Your task to perform on an android device: see sites visited before in the chrome app Image 0: 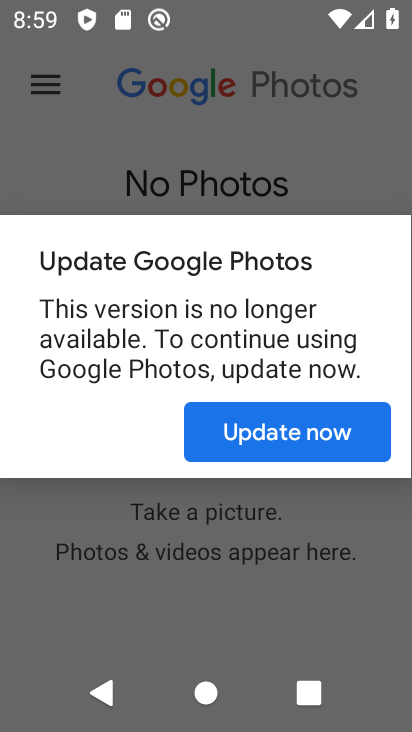
Step 0: press home button
Your task to perform on an android device: see sites visited before in the chrome app Image 1: 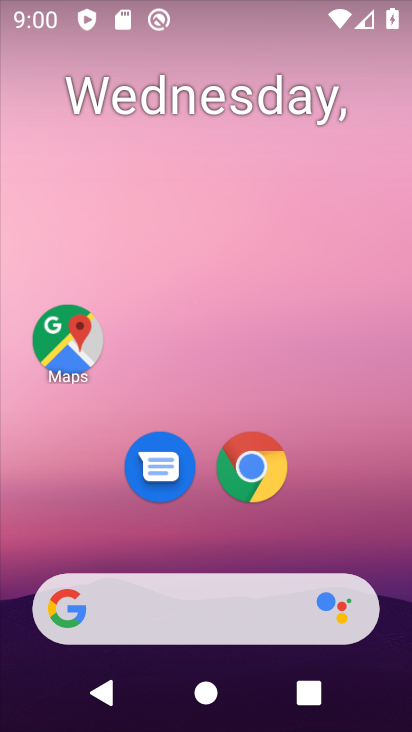
Step 1: drag from (227, 10) to (246, 448)
Your task to perform on an android device: see sites visited before in the chrome app Image 2: 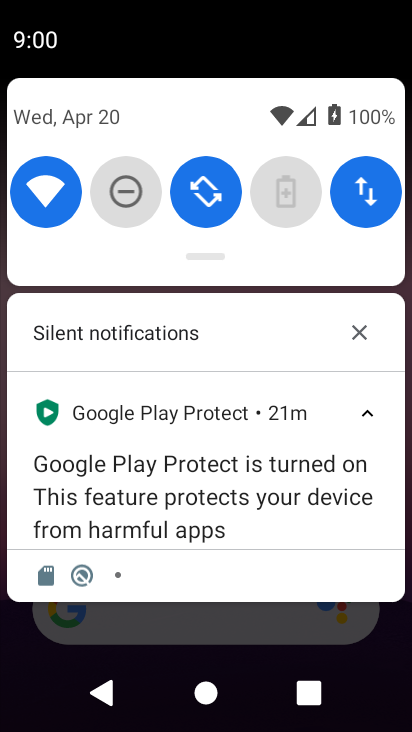
Step 2: drag from (268, 292) to (235, 530)
Your task to perform on an android device: see sites visited before in the chrome app Image 3: 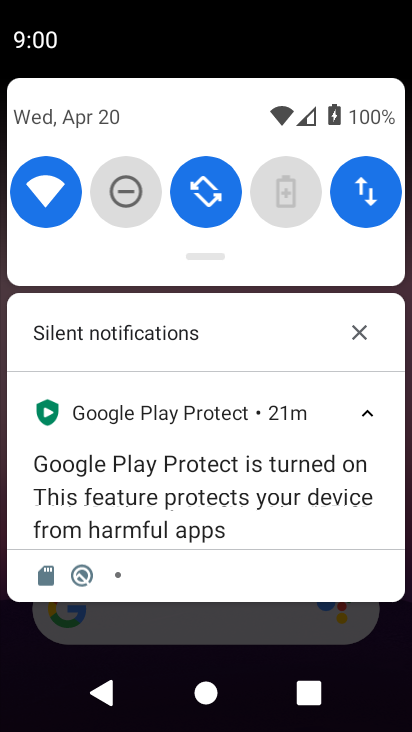
Step 3: drag from (254, 265) to (272, 561)
Your task to perform on an android device: see sites visited before in the chrome app Image 4: 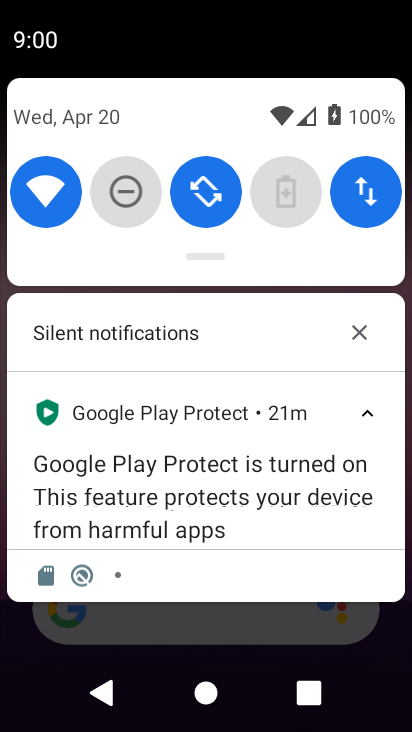
Step 4: drag from (218, 244) to (204, 568)
Your task to perform on an android device: see sites visited before in the chrome app Image 5: 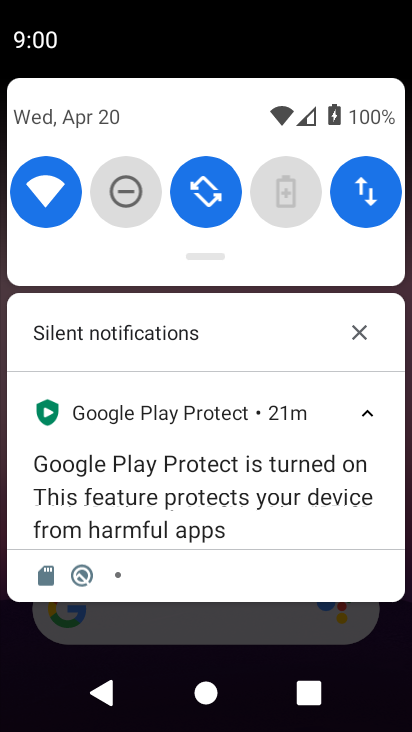
Step 5: drag from (261, 246) to (310, 706)
Your task to perform on an android device: see sites visited before in the chrome app Image 6: 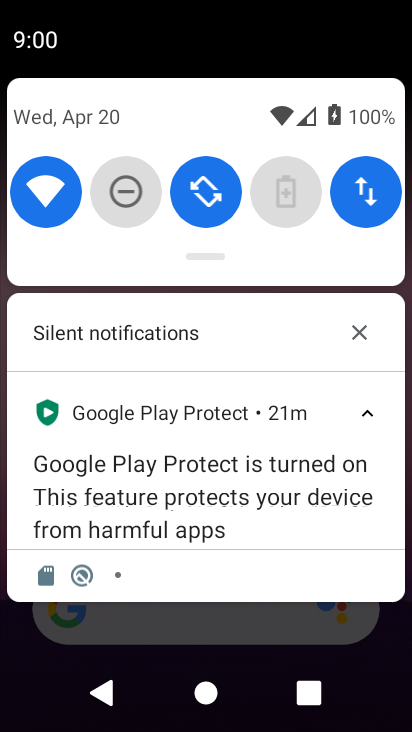
Step 6: drag from (291, 253) to (280, 731)
Your task to perform on an android device: see sites visited before in the chrome app Image 7: 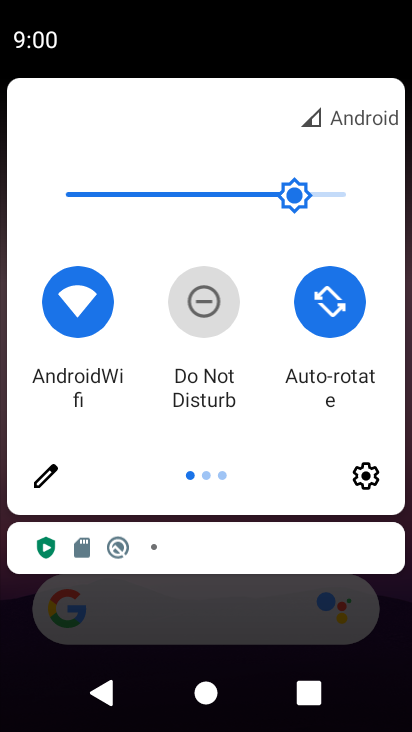
Step 7: drag from (368, 362) to (8, 334)
Your task to perform on an android device: see sites visited before in the chrome app Image 8: 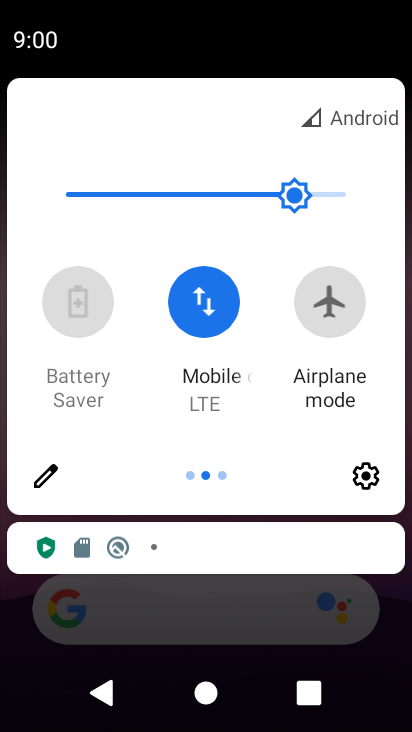
Step 8: press home button
Your task to perform on an android device: see sites visited before in the chrome app Image 9: 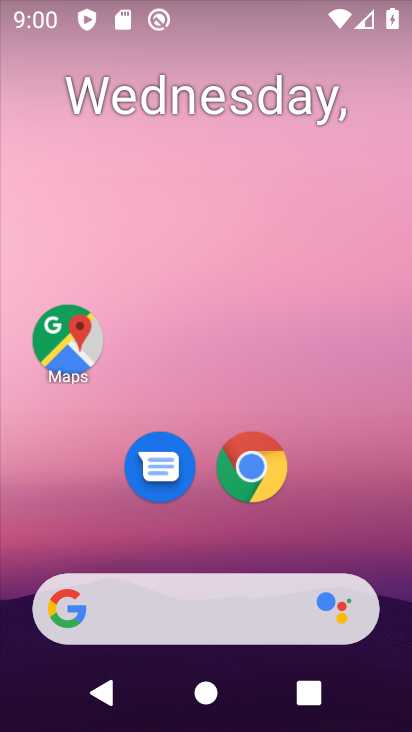
Step 9: drag from (329, 512) to (294, 51)
Your task to perform on an android device: see sites visited before in the chrome app Image 10: 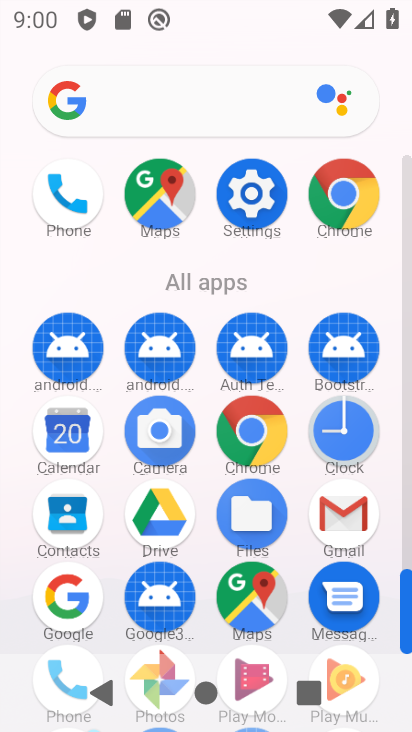
Step 10: click (253, 441)
Your task to perform on an android device: see sites visited before in the chrome app Image 11: 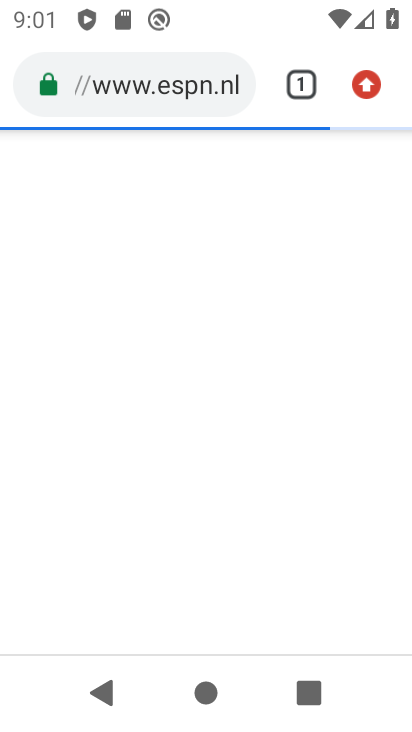
Step 11: task complete